Your task to perform on an android device: Open settings Image 0: 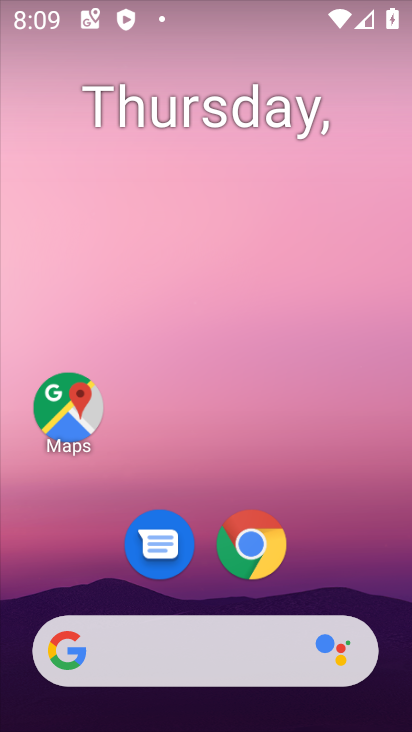
Step 0: drag from (322, 509) to (237, 162)
Your task to perform on an android device: Open settings Image 1: 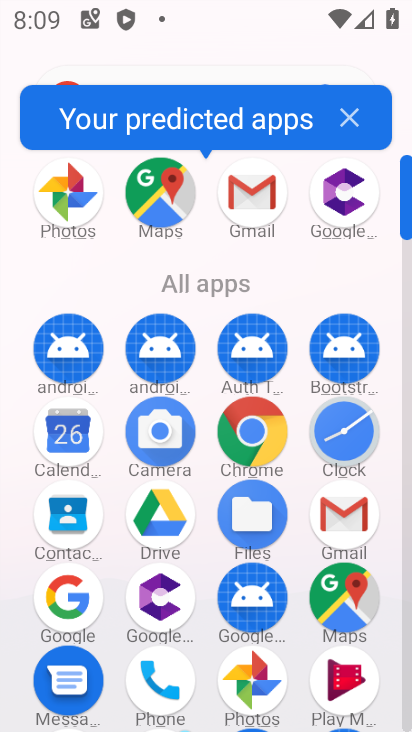
Step 1: drag from (296, 483) to (286, 259)
Your task to perform on an android device: Open settings Image 2: 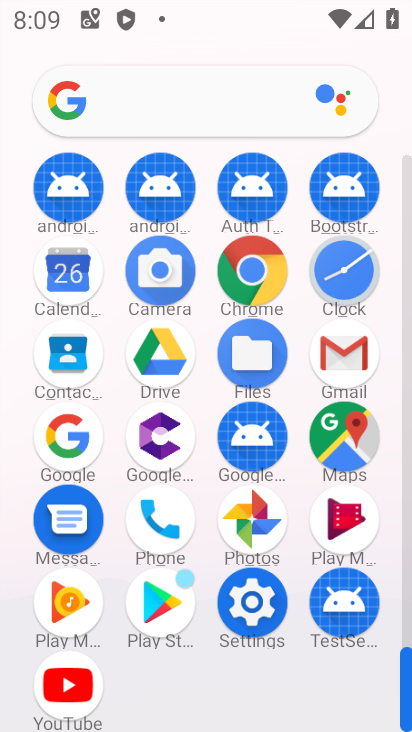
Step 2: click (252, 604)
Your task to perform on an android device: Open settings Image 3: 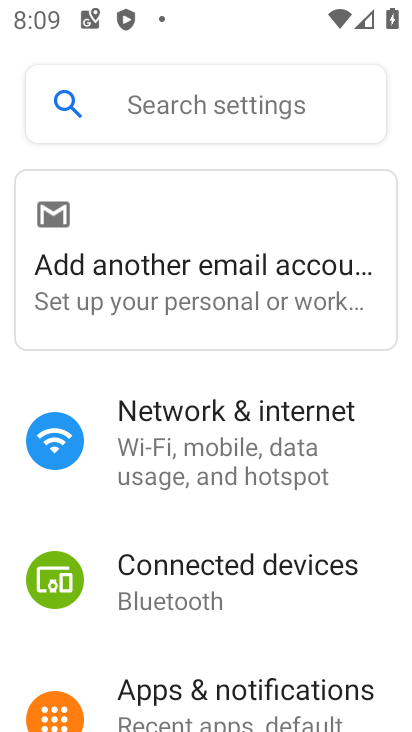
Step 3: task complete